Your task to perform on an android device: open a bookmark in the chrome app Image 0: 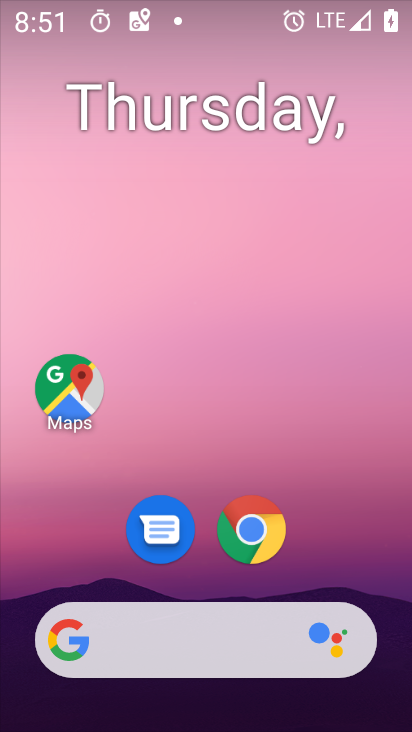
Step 0: drag from (364, 557) to (359, 183)
Your task to perform on an android device: open a bookmark in the chrome app Image 1: 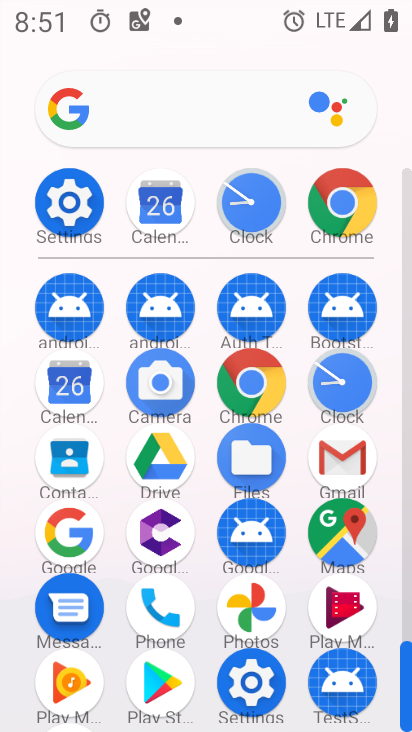
Step 1: click (271, 391)
Your task to perform on an android device: open a bookmark in the chrome app Image 2: 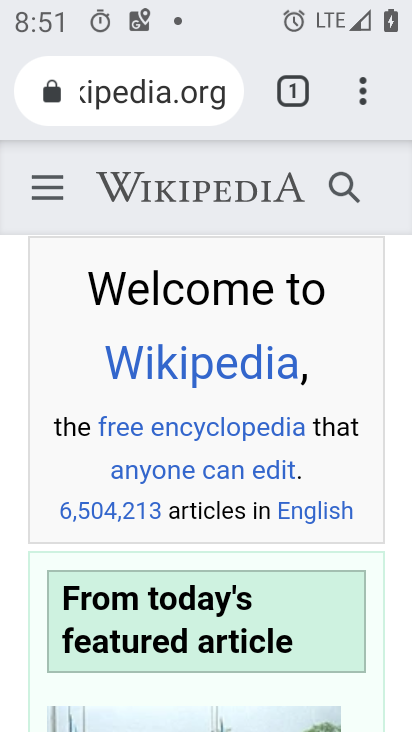
Step 2: click (364, 103)
Your task to perform on an android device: open a bookmark in the chrome app Image 3: 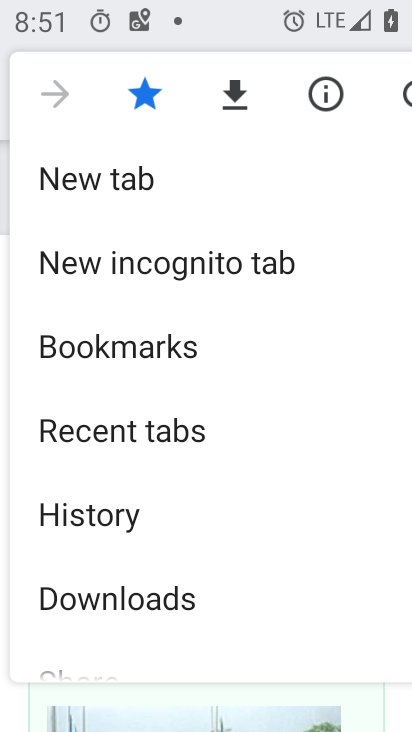
Step 3: drag from (316, 540) to (332, 450)
Your task to perform on an android device: open a bookmark in the chrome app Image 4: 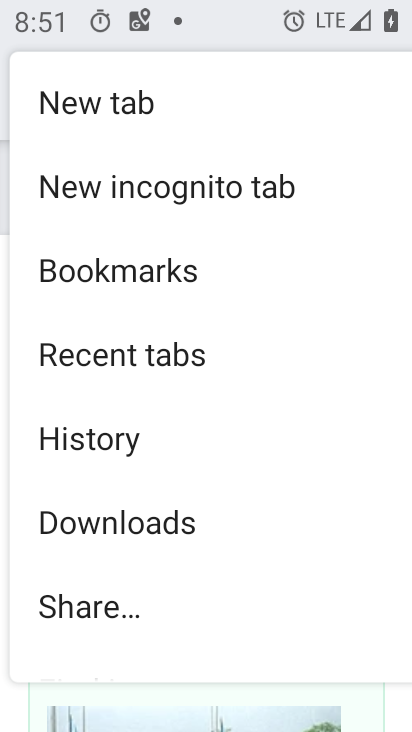
Step 4: click (181, 281)
Your task to perform on an android device: open a bookmark in the chrome app Image 5: 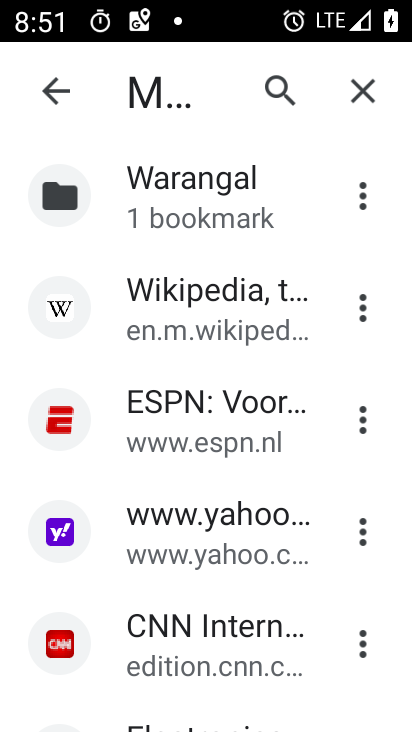
Step 5: click (253, 325)
Your task to perform on an android device: open a bookmark in the chrome app Image 6: 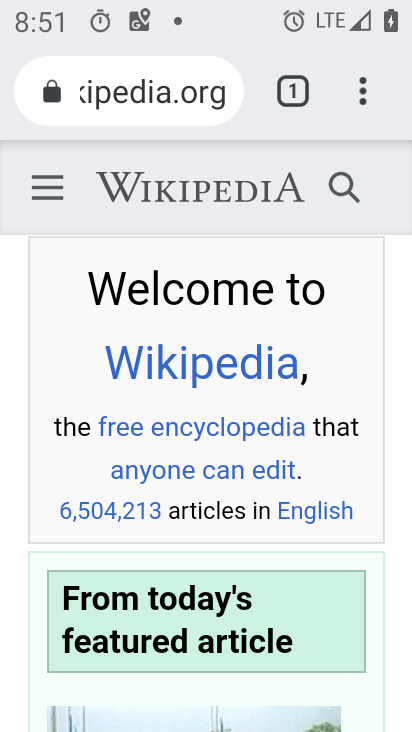
Step 6: task complete